Your task to perform on an android device: Is it going to rain tomorrow? Image 0: 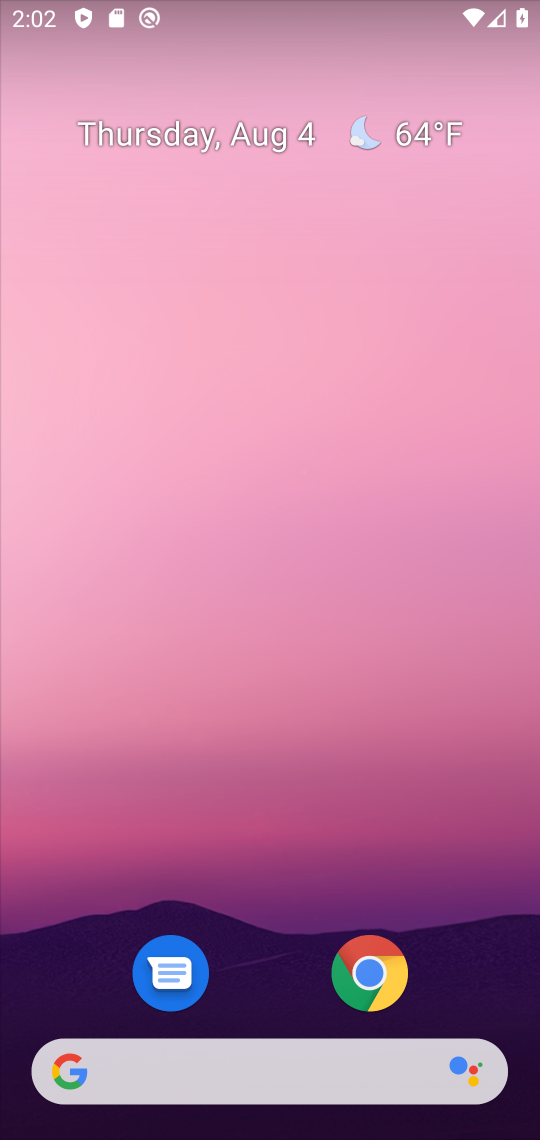
Step 0: drag from (276, 1003) to (231, 48)
Your task to perform on an android device: Is it going to rain tomorrow? Image 1: 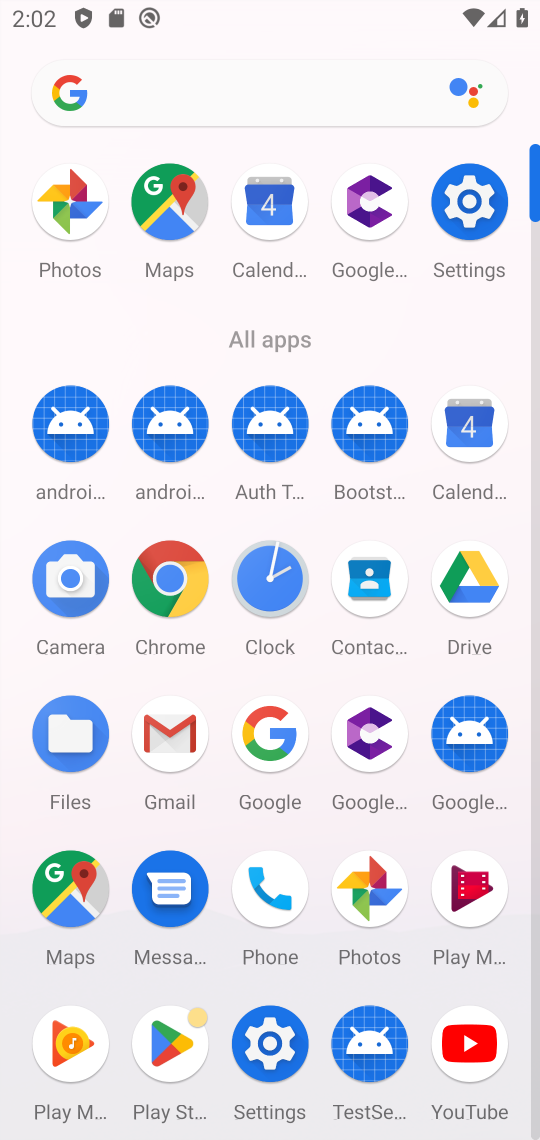
Step 1: click (249, 740)
Your task to perform on an android device: Is it going to rain tomorrow? Image 2: 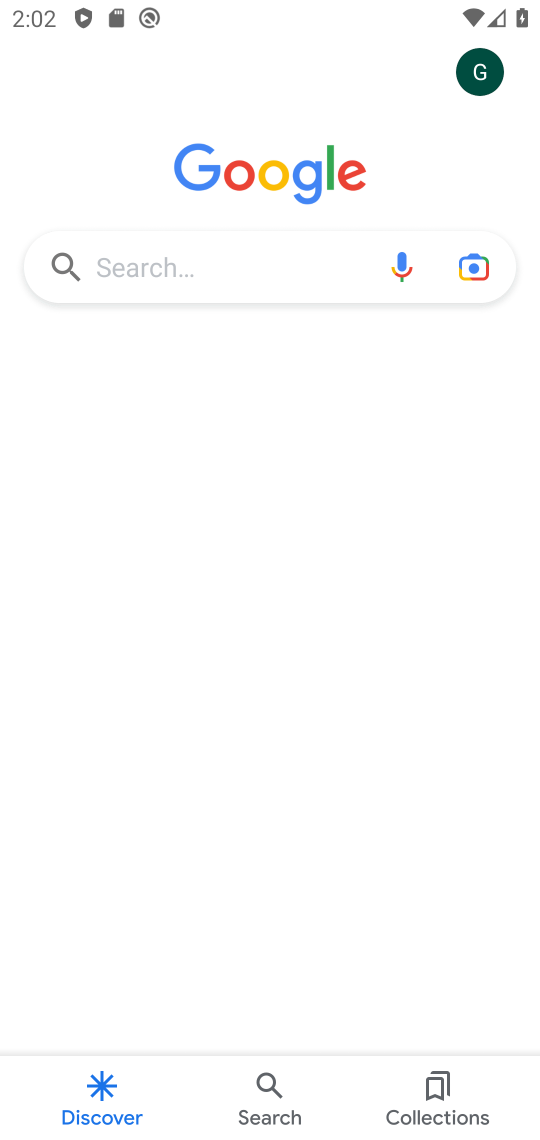
Step 2: click (221, 280)
Your task to perform on an android device: Is it going to rain tomorrow? Image 3: 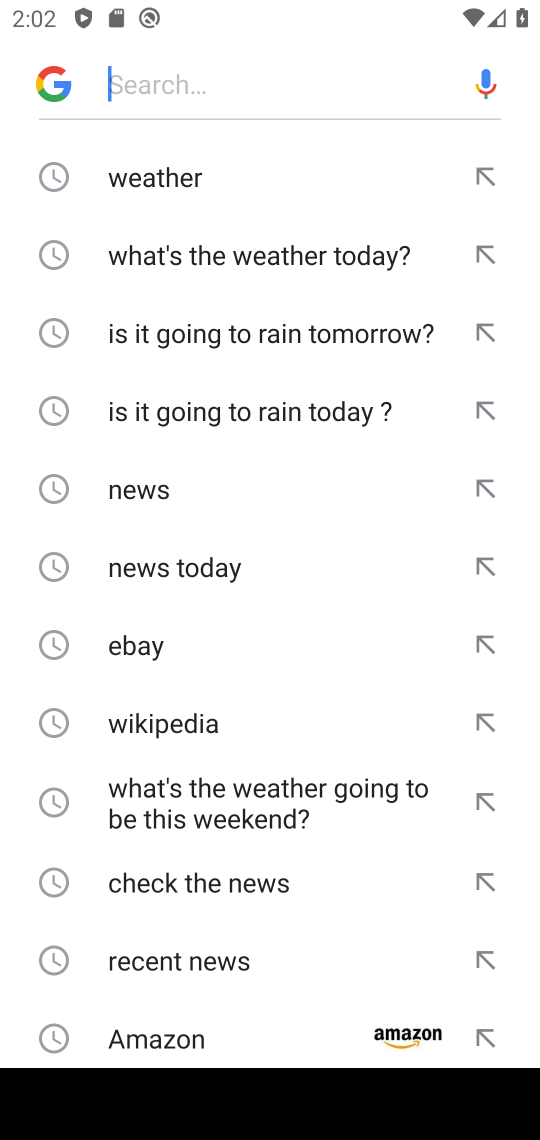
Step 3: click (127, 177)
Your task to perform on an android device: Is it going to rain tomorrow? Image 4: 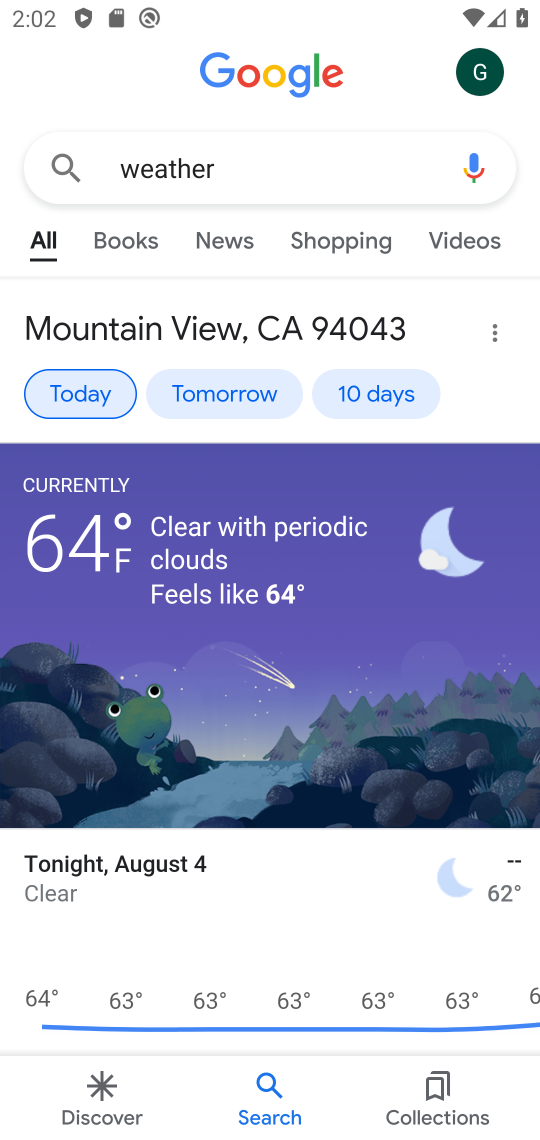
Step 4: click (209, 386)
Your task to perform on an android device: Is it going to rain tomorrow? Image 5: 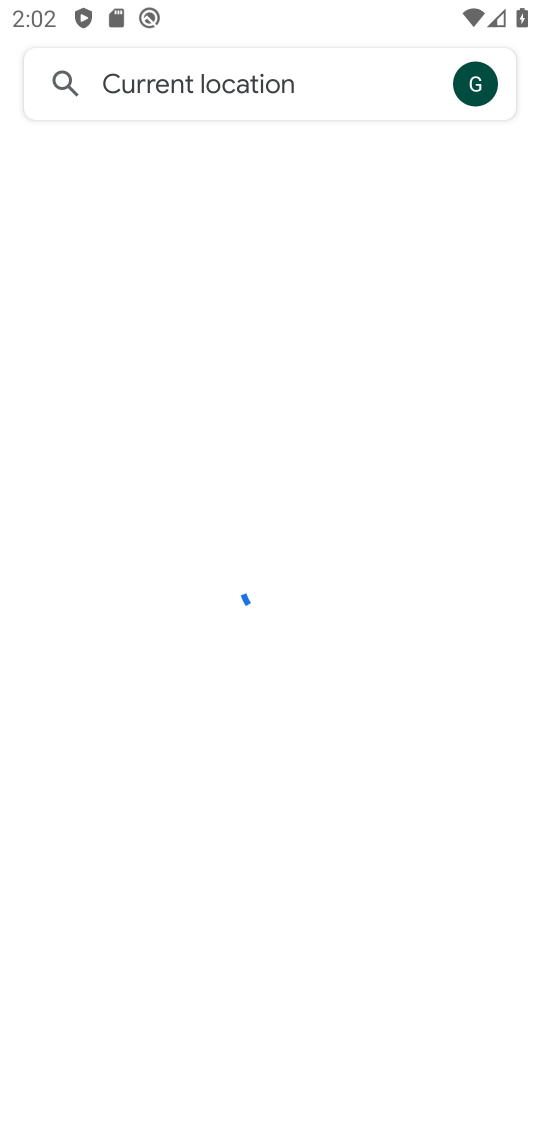
Step 5: task complete